Your task to perform on an android device: Go to display settings Image 0: 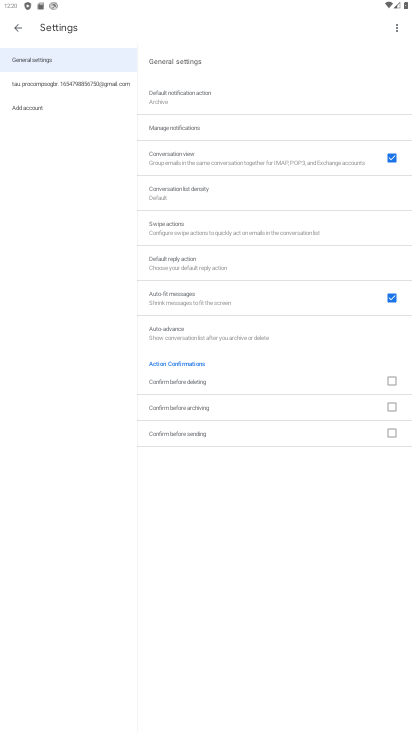
Step 0: press home button
Your task to perform on an android device: Go to display settings Image 1: 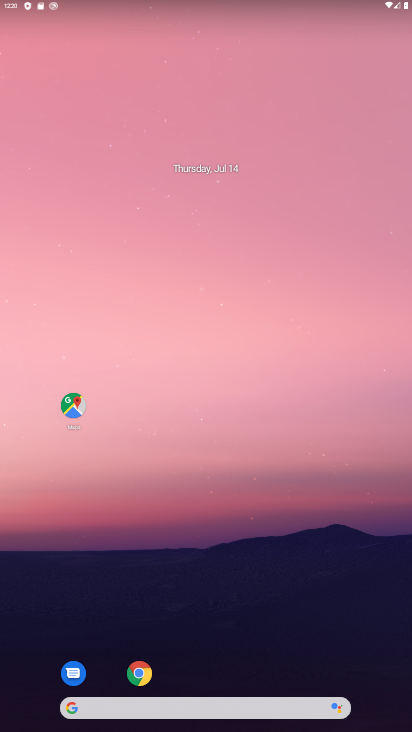
Step 1: drag from (265, 663) to (236, 328)
Your task to perform on an android device: Go to display settings Image 2: 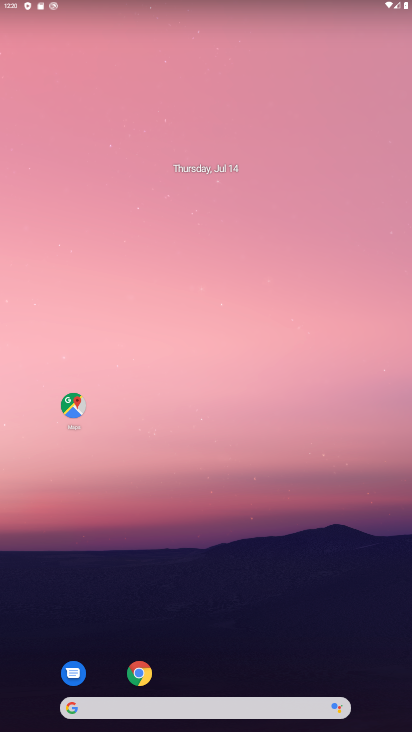
Step 2: drag from (267, 684) to (280, 203)
Your task to perform on an android device: Go to display settings Image 3: 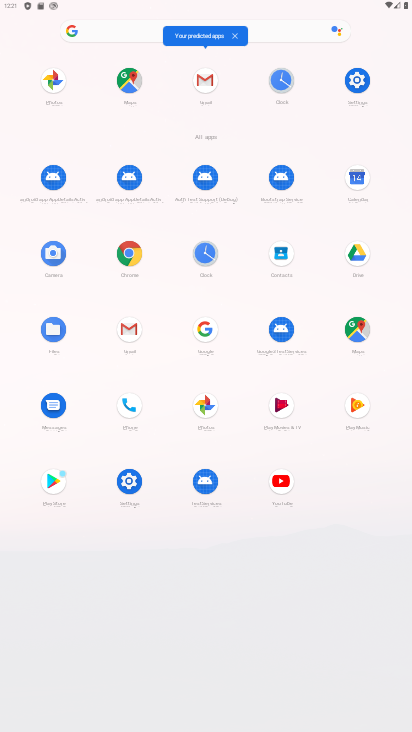
Step 3: click (367, 102)
Your task to perform on an android device: Go to display settings Image 4: 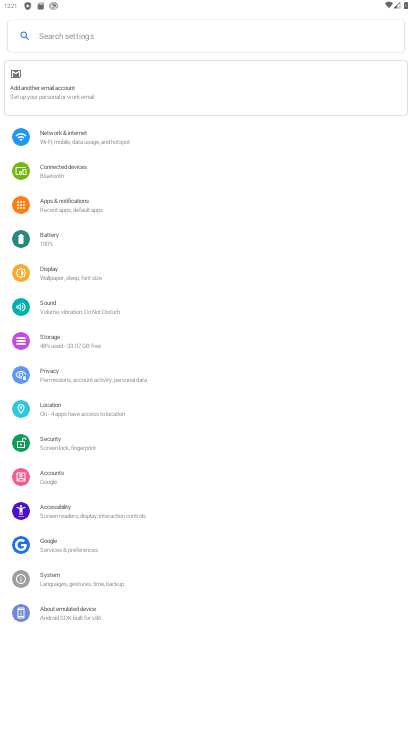
Step 4: click (96, 280)
Your task to perform on an android device: Go to display settings Image 5: 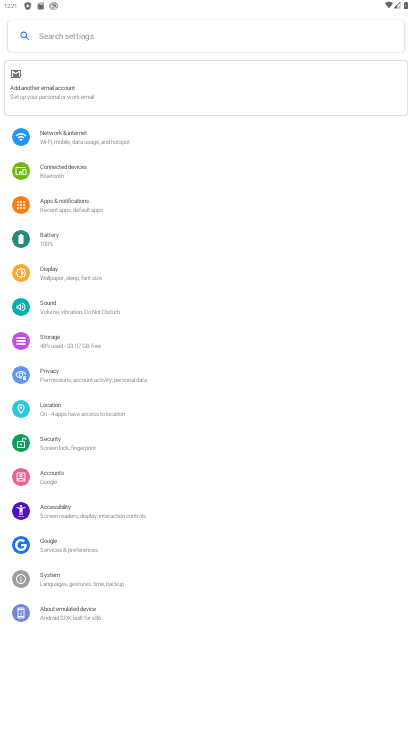
Step 5: task complete